Your task to perform on an android device: open chrome and create a bookmark for the current page Image 0: 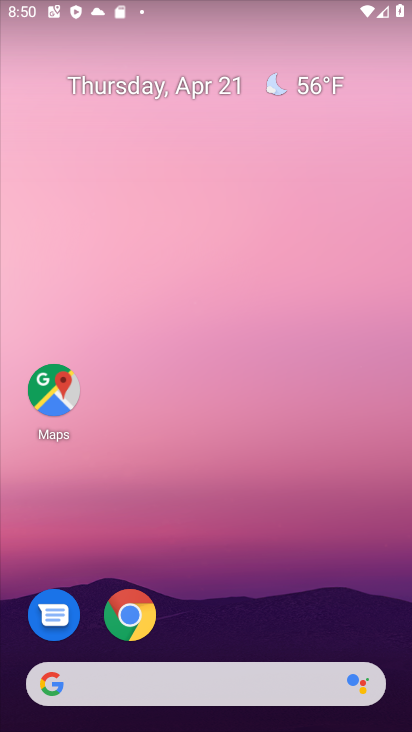
Step 0: click (128, 617)
Your task to perform on an android device: open chrome and create a bookmark for the current page Image 1: 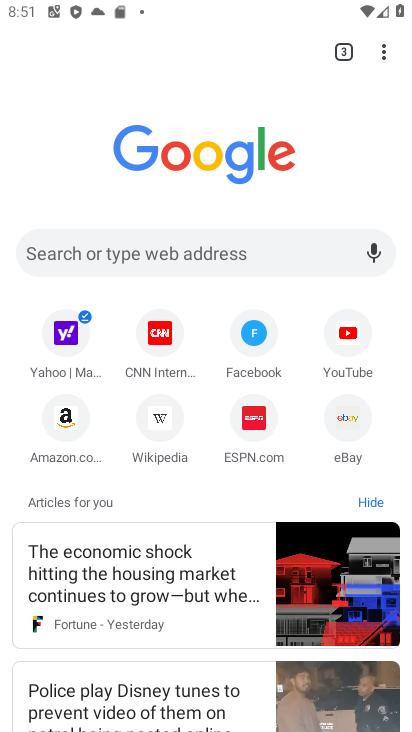
Step 1: click (379, 51)
Your task to perform on an android device: open chrome and create a bookmark for the current page Image 2: 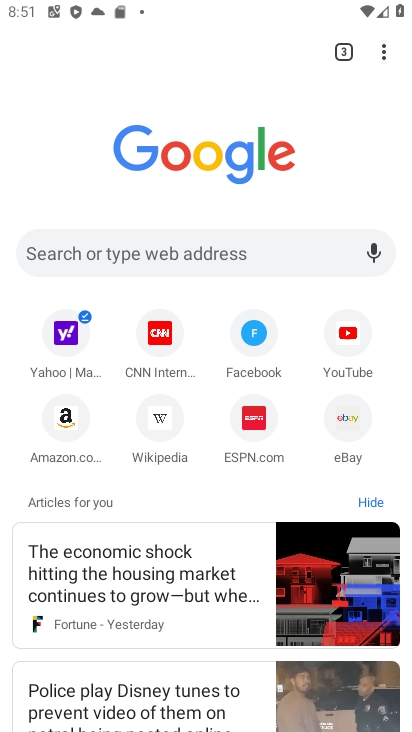
Step 2: click (378, 52)
Your task to perform on an android device: open chrome and create a bookmark for the current page Image 3: 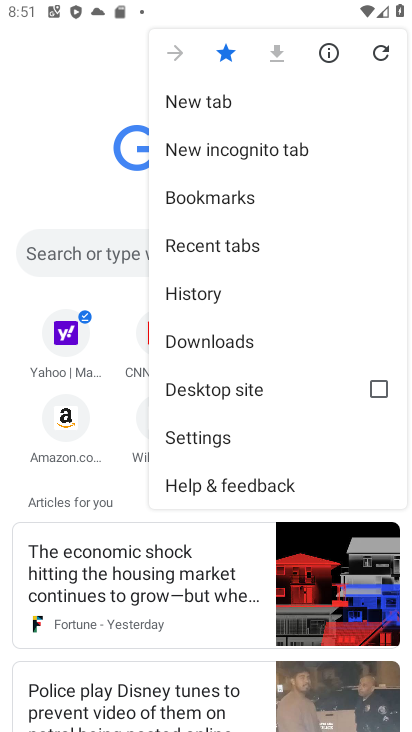
Step 3: click (76, 187)
Your task to perform on an android device: open chrome and create a bookmark for the current page Image 4: 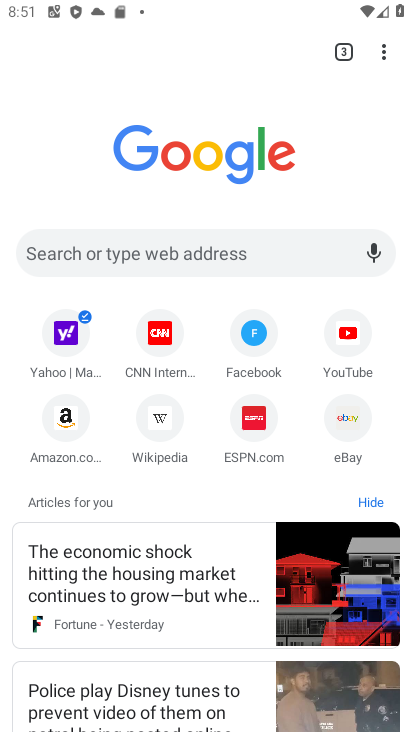
Step 4: click (107, 245)
Your task to perform on an android device: open chrome and create a bookmark for the current page Image 5: 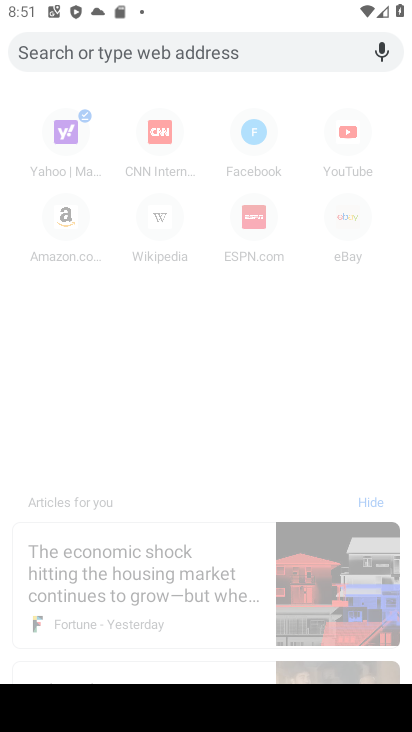
Step 5: type "nike.com"
Your task to perform on an android device: open chrome and create a bookmark for the current page Image 6: 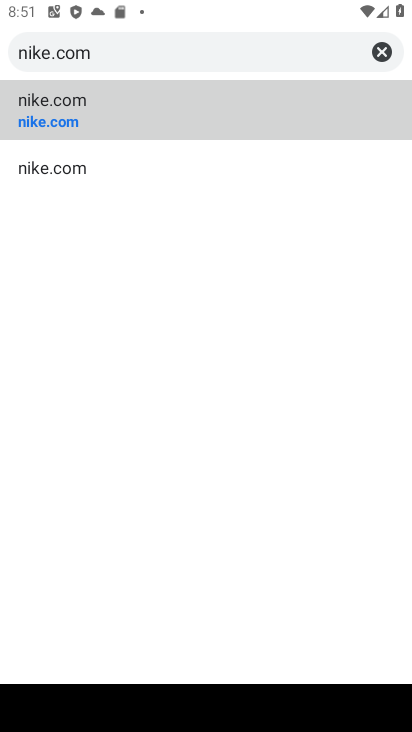
Step 6: click (199, 109)
Your task to perform on an android device: open chrome and create a bookmark for the current page Image 7: 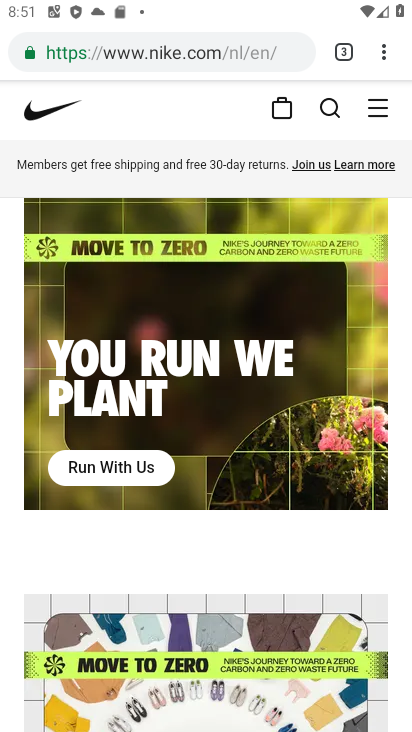
Step 7: click (375, 50)
Your task to perform on an android device: open chrome and create a bookmark for the current page Image 8: 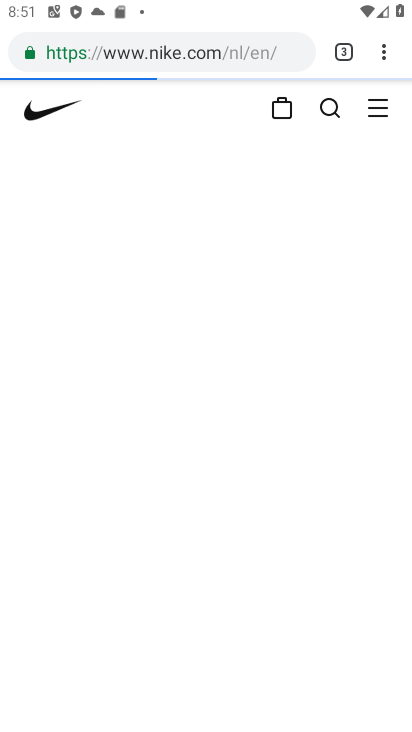
Step 8: click (381, 52)
Your task to perform on an android device: open chrome and create a bookmark for the current page Image 9: 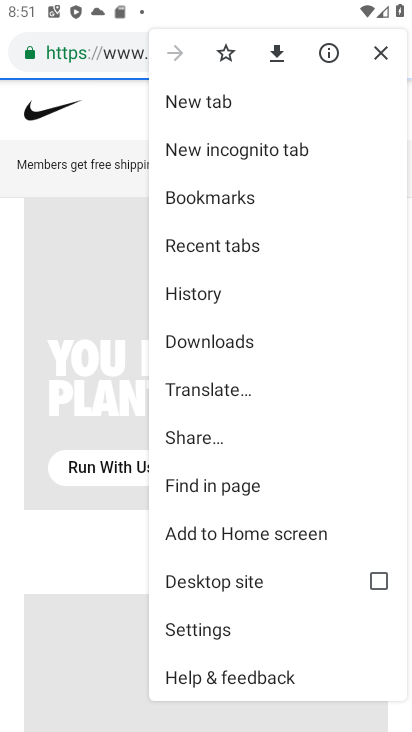
Step 9: click (224, 55)
Your task to perform on an android device: open chrome and create a bookmark for the current page Image 10: 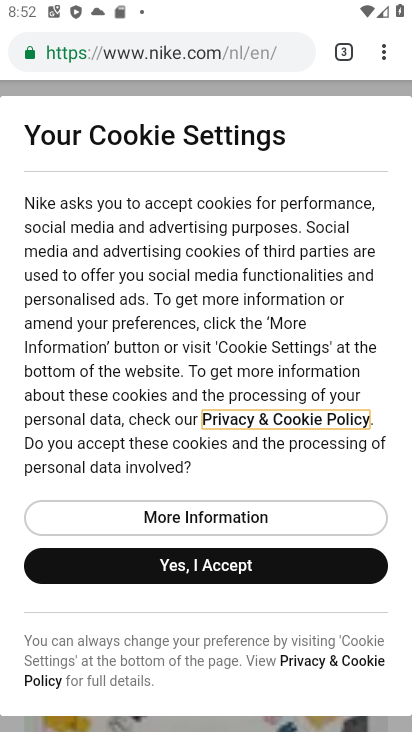
Step 10: task complete